Your task to perform on an android device: open wifi settings Image 0: 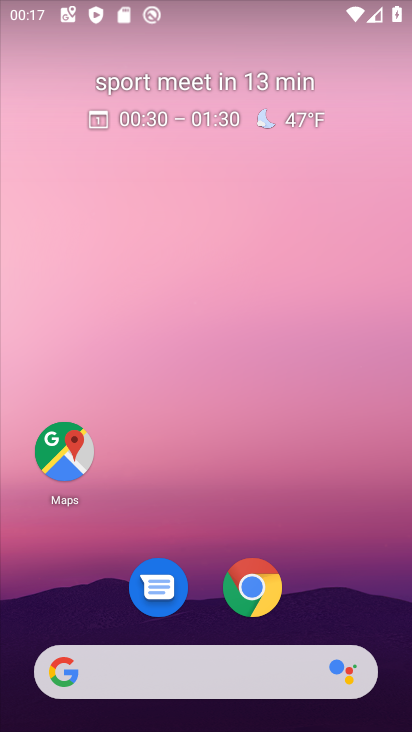
Step 0: drag from (401, 682) to (367, 87)
Your task to perform on an android device: open wifi settings Image 1: 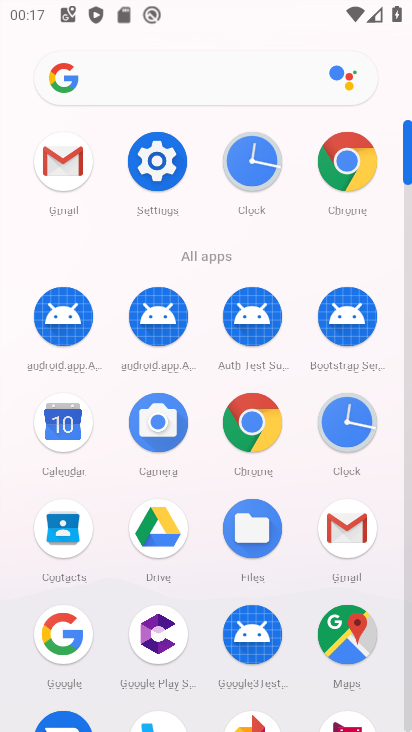
Step 1: click (157, 169)
Your task to perform on an android device: open wifi settings Image 2: 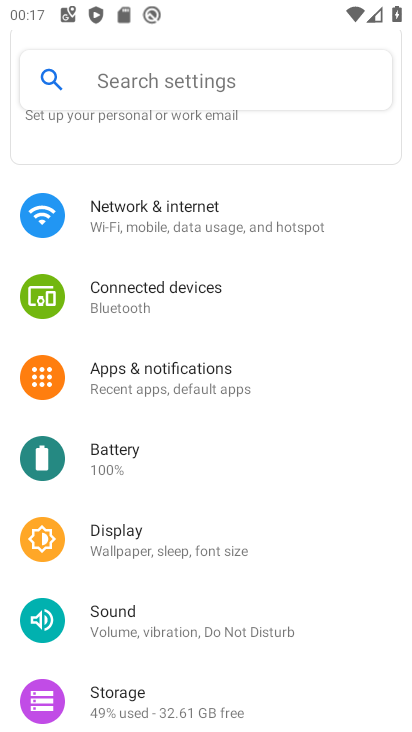
Step 2: click (151, 228)
Your task to perform on an android device: open wifi settings Image 3: 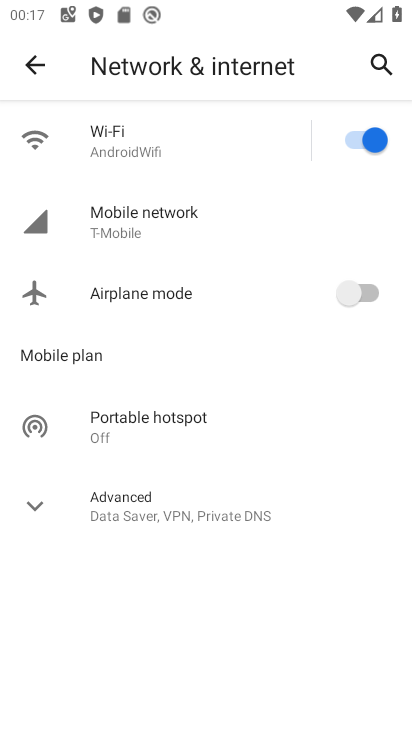
Step 3: click (123, 146)
Your task to perform on an android device: open wifi settings Image 4: 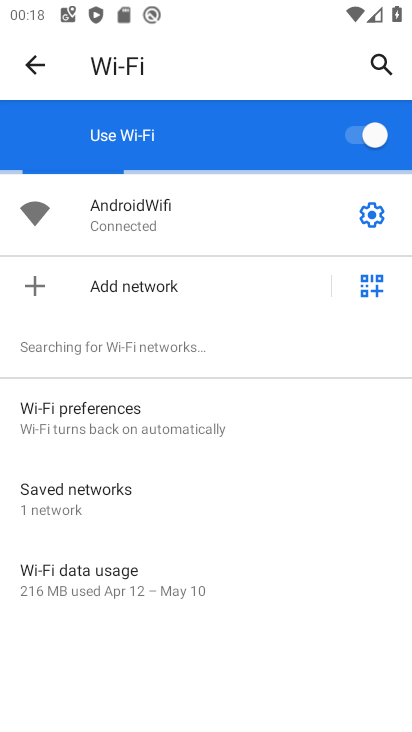
Step 4: click (366, 214)
Your task to perform on an android device: open wifi settings Image 5: 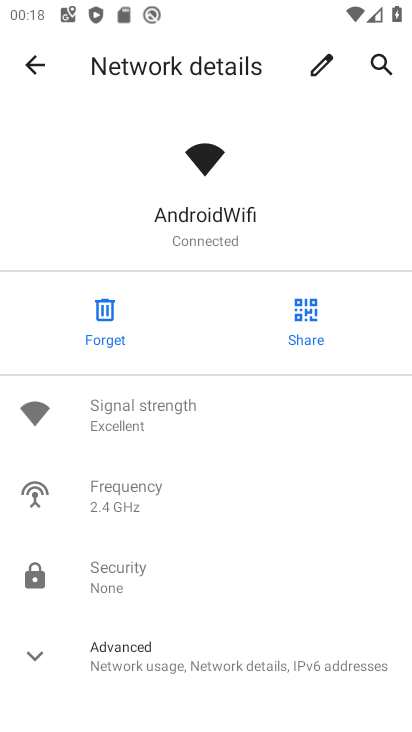
Step 5: task complete